Your task to perform on an android device: turn on data saver in the chrome app Image 0: 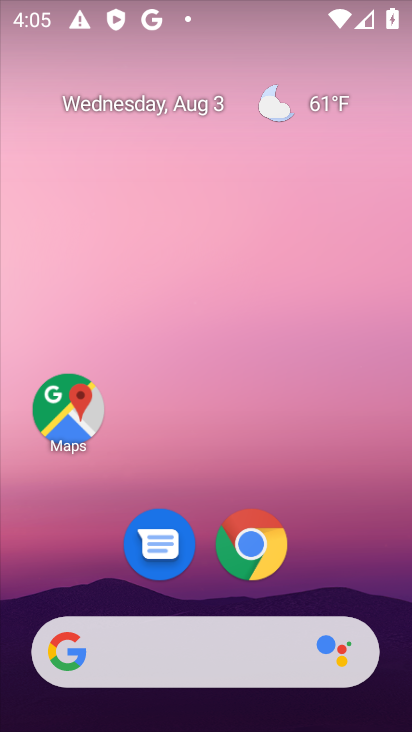
Step 0: press home button
Your task to perform on an android device: turn on data saver in the chrome app Image 1: 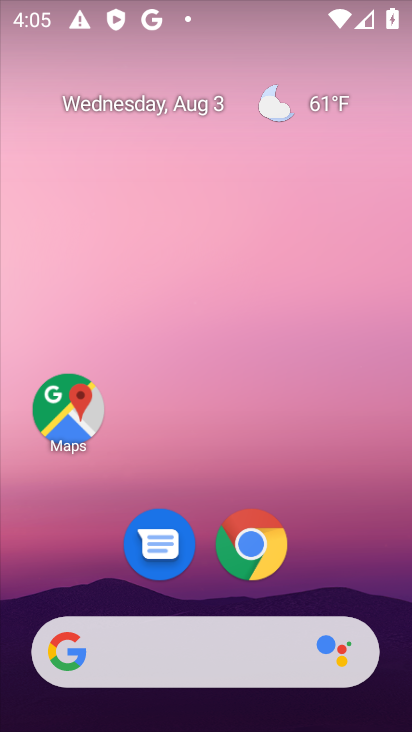
Step 1: click (270, 539)
Your task to perform on an android device: turn on data saver in the chrome app Image 2: 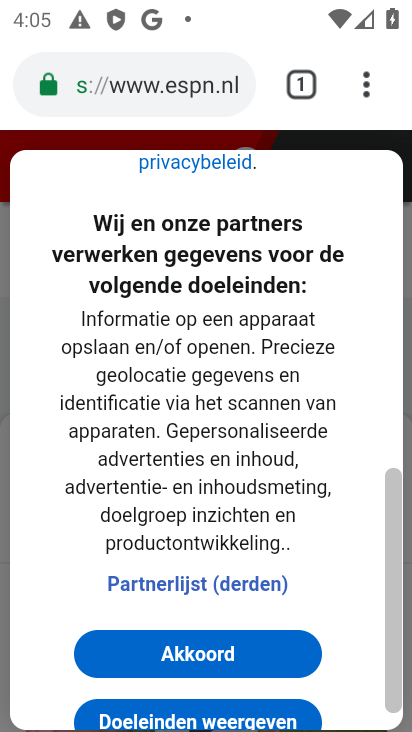
Step 2: drag from (362, 95) to (120, 580)
Your task to perform on an android device: turn on data saver in the chrome app Image 3: 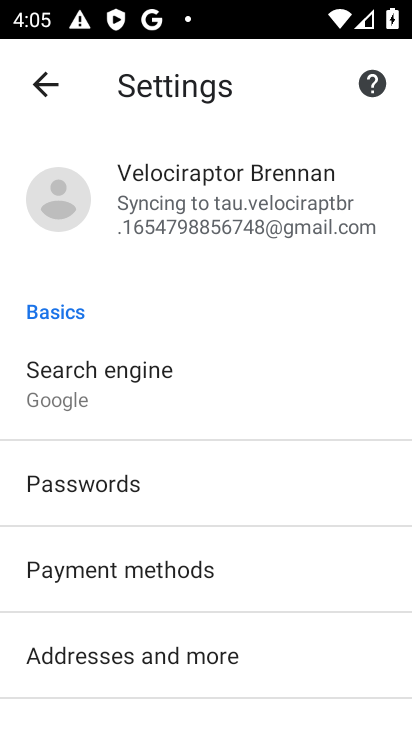
Step 3: drag from (229, 628) to (149, 253)
Your task to perform on an android device: turn on data saver in the chrome app Image 4: 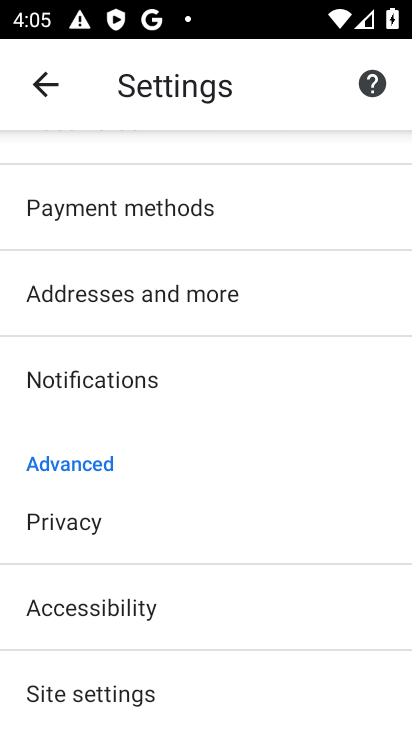
Step 4: drag from (164, 693) to (144, 386)
Your task to perform on an android device: turn on data saver in the chrome app Image 5: 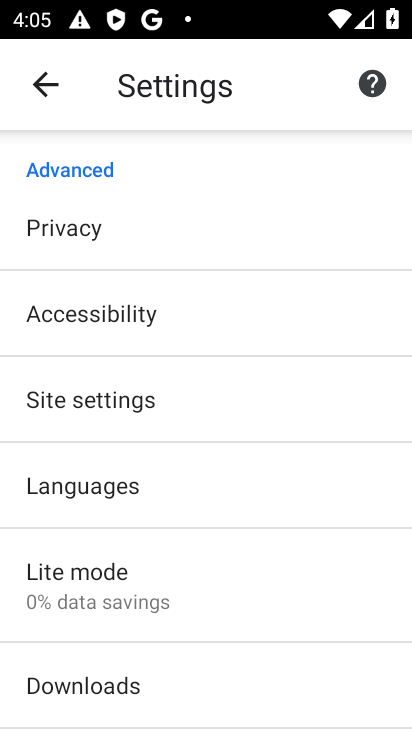
Step 5: click (75, 593)
Your task to perform on an android device: turn on data saver in the chrome app Image 6: 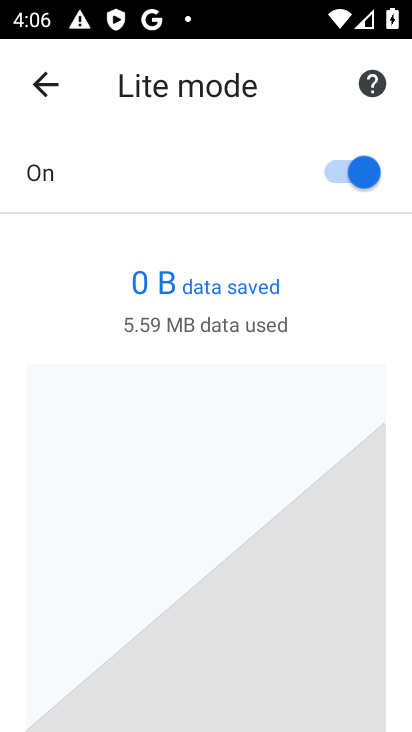
Step 6: task complete